Your task to perform on an android device: change alarm snooze length Image 0: 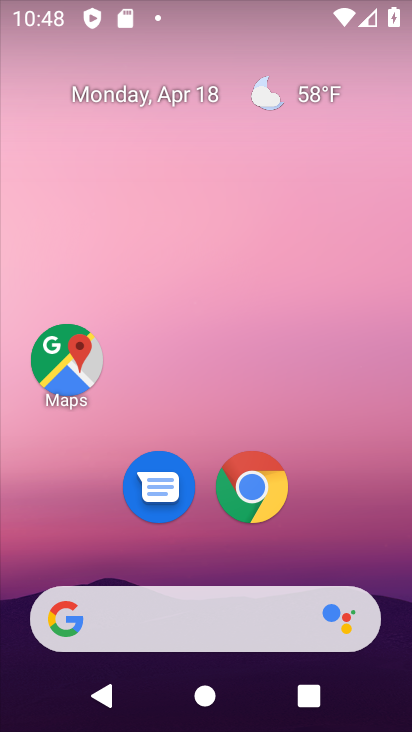
Step 0: drag from (353, 465) to (321, 200)
Your task to perform on an android device: change alarm snooze length Image 1: 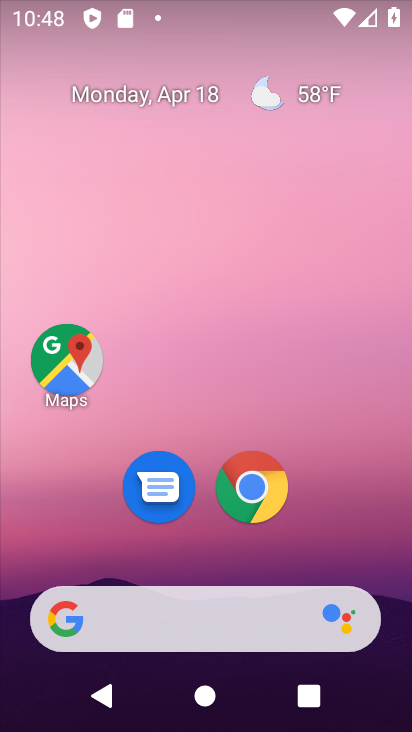
Step 1: drag from (334, 585) to (296, 296)
Your task to perform on an android device: change alarm snooze length Image 2: 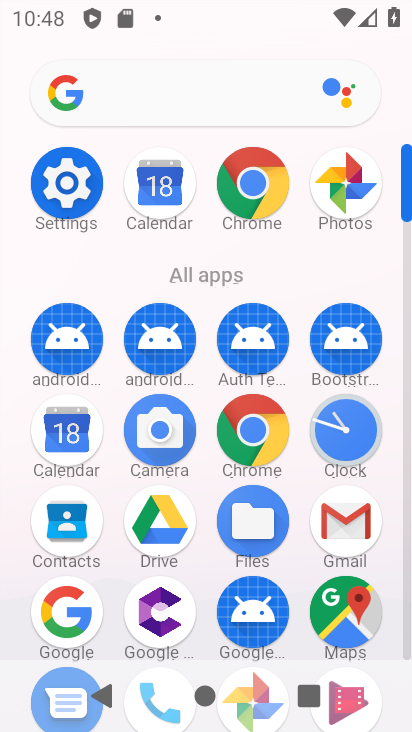
Step 2: click (360, 444)
Your task to perform on an android device: change alarm snooze length Image 3: 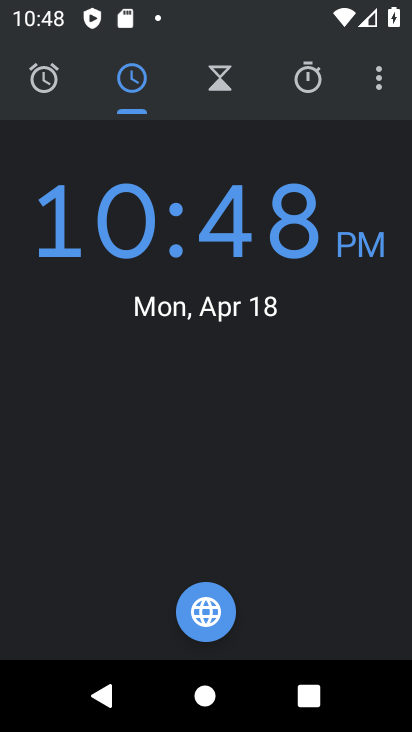
Step 3: click (377, 96)
Your task to perform on an android device: change alarm snooze length Image 4: 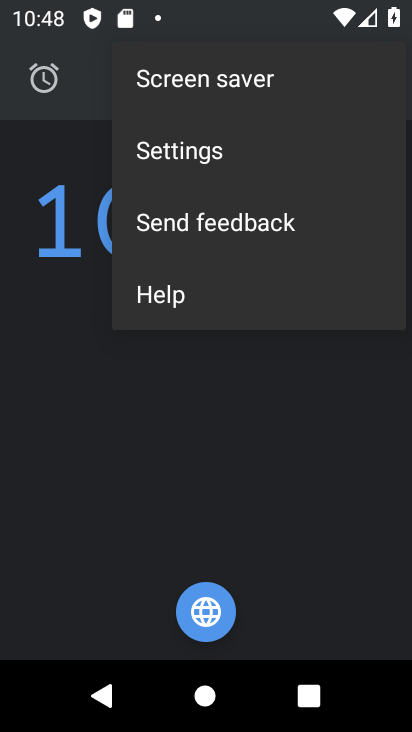
Step 4: click (238, 146)
Your task to perform on an android device: change alarm snooze length Image 5: 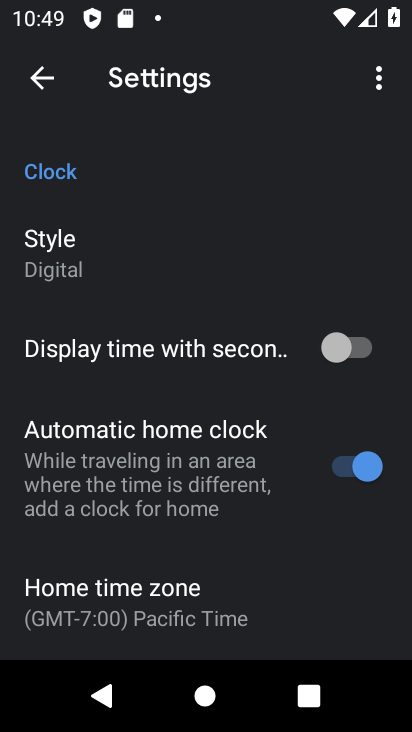
Step 5: drag from (212, 561) to (192, 272)
Your task to perform on an android device: change alarm snooze length Image 6: 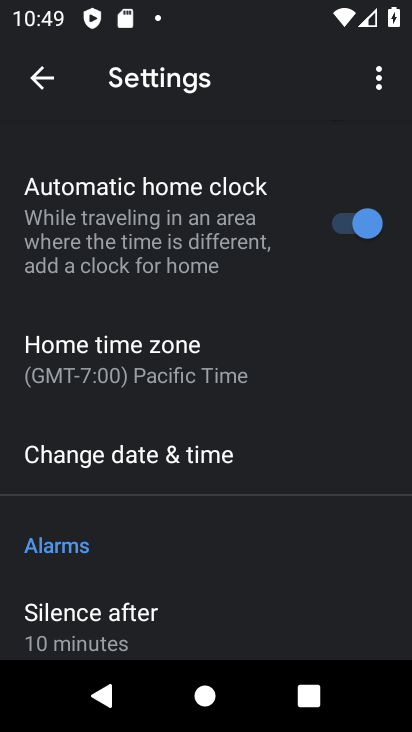
Step 6: drag from (209, 592) to (185, 348)
Your task to perform on an android device: change alarm snooze length Image 7: 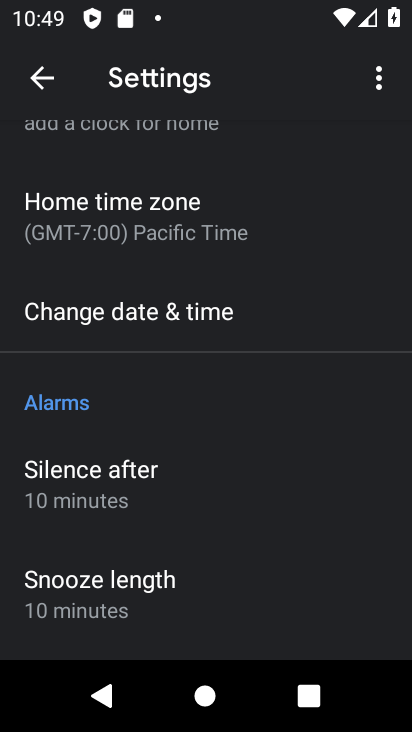
Step 7: click (172, 607)
Your task to perform on an android device: change alarm snooze length Image 8: 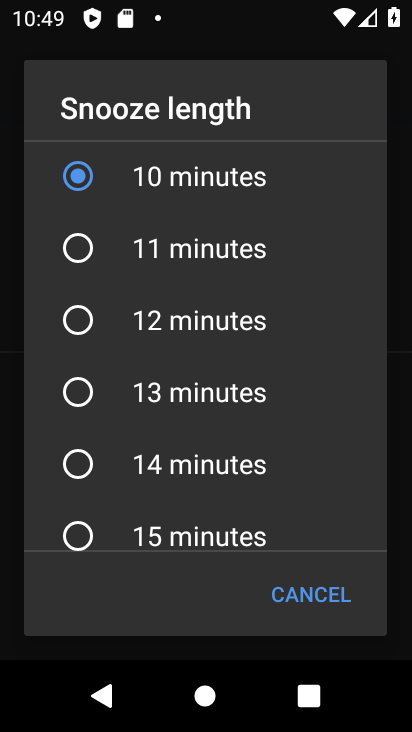
Step 8: click (182, 531)
Your task to perform on an android device: change alarm snooze length Image 9: 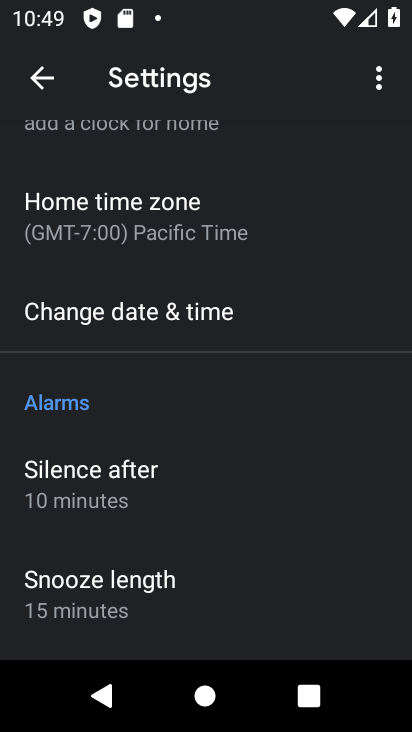
Step 9: task complete